Your task to perform on an android device: read, delete, or share a saved page in the chrome app Image 0: 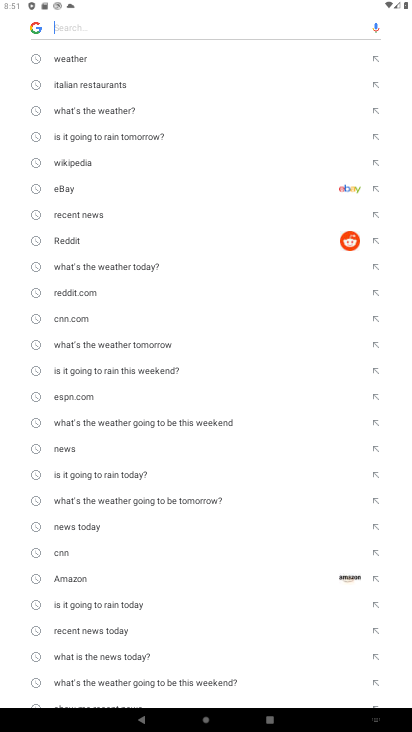
Step 0: press home button
Your task to perform on an android device: read, delete, or share a saved page in the chrome app Image 1: 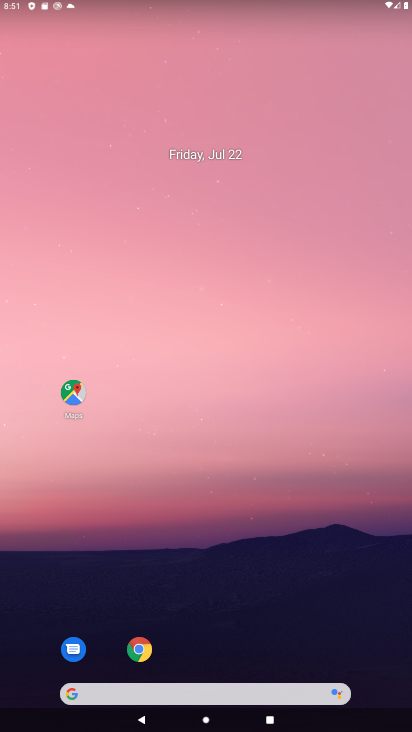
Step 1: drag from (207, 590) to (216, 240)
Your task to perform on an android device: read, delete, or share a saved page in the chrome app Image 2: 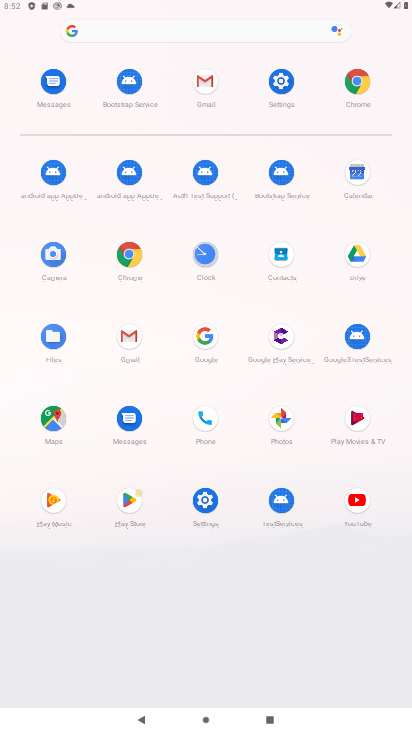
Step 2: click (202, 492)
Your task to perform on an android device: read, delete, or share a saved page in the chrome app Image 3: 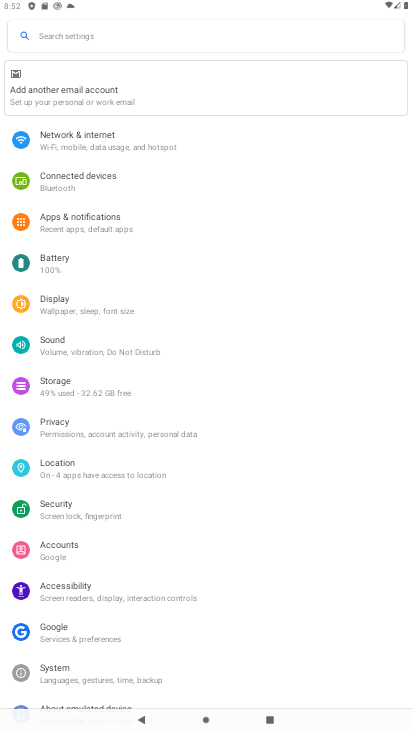
Step 3: task complete